Your task to perform on an android device: Open sound settings Image 0: 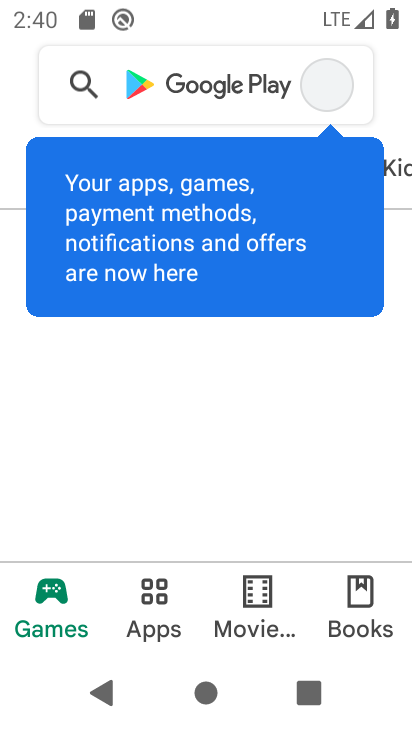
Step 0: press home button
Your task to perform on an android device: Open sound settings Image 1: 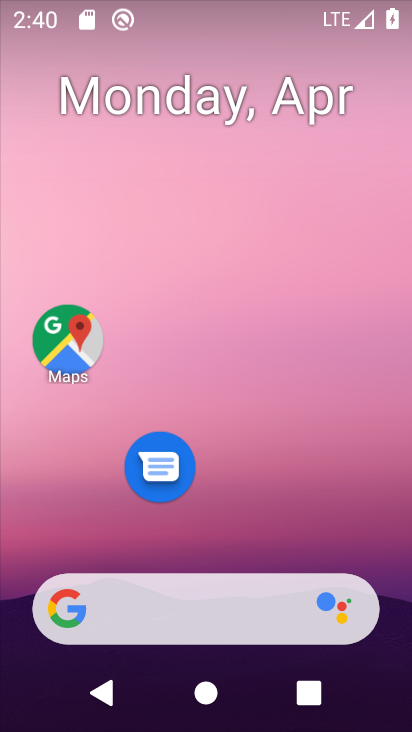
Step 1: drag from (284, 466) to (297, 66)
Your task to perform on an android device: Open sound settings Image 2: 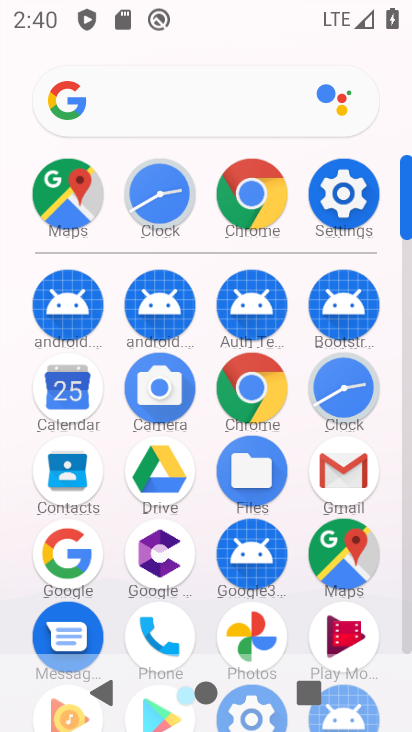
Step 2: click (339, 201)
Your task to perform on an android device: Open sound settings Image 3: 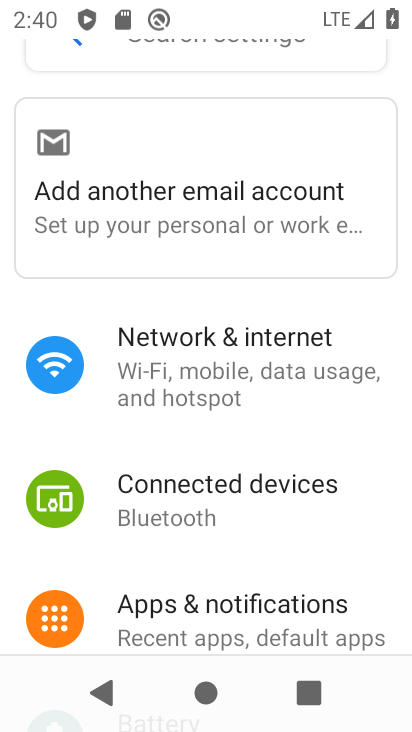
Step 3: drag from (215, 469) to (252, 314)
Your task to perform on an android device: Open sound settings Image 4: 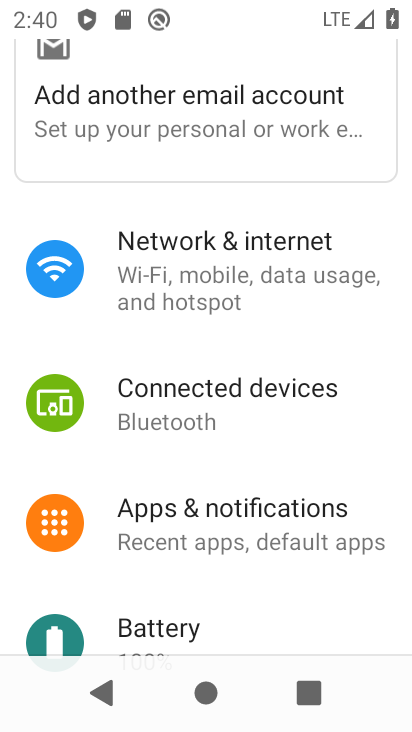
Step 4: drag from (188, 552) to (219, 400)
Your task to perform on an android device: Open sound settings Image 5: 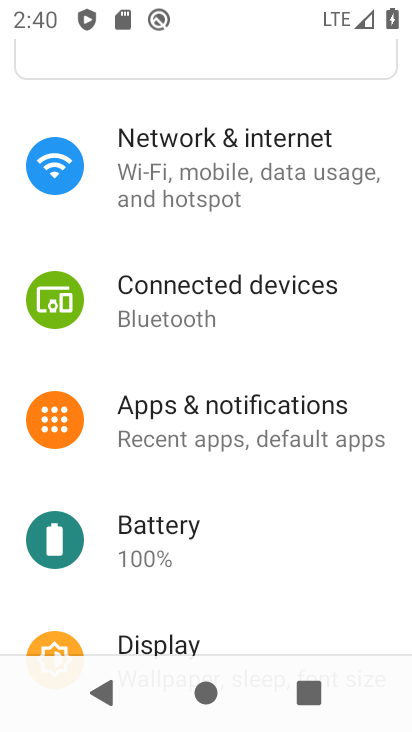
Step 5: drag from (213, 512) to (251, 393)
Your task to perform on an android device: Open sound settings Image 6: 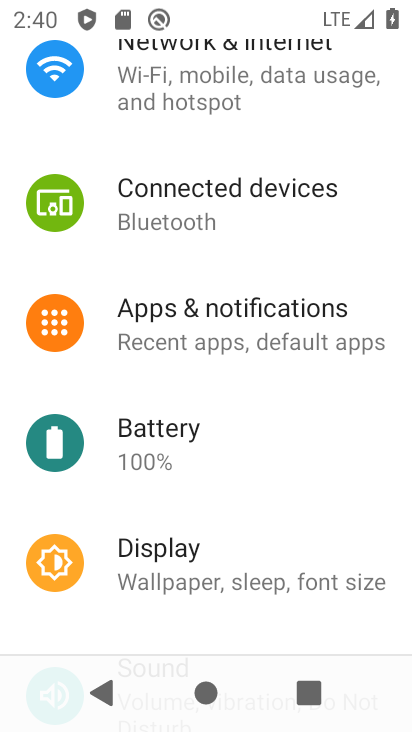
Step 6: drag from (237, 547) to (261, 411)
Your task to perform on an android device: Open sound settings Image 7: 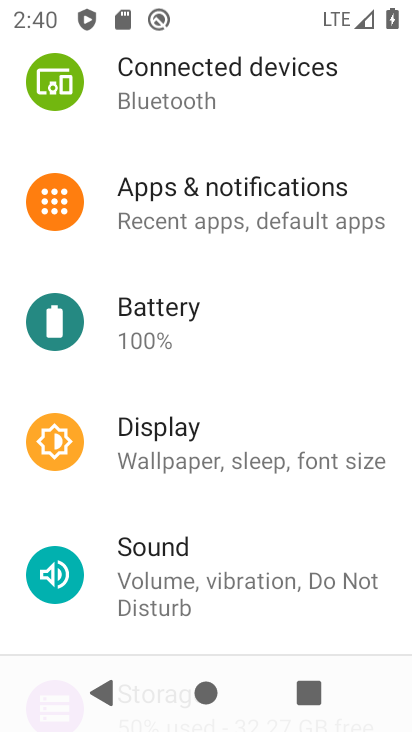
Step 7: click (255, 558)
Your task to perform on an android device: Open sound settings Image 8: 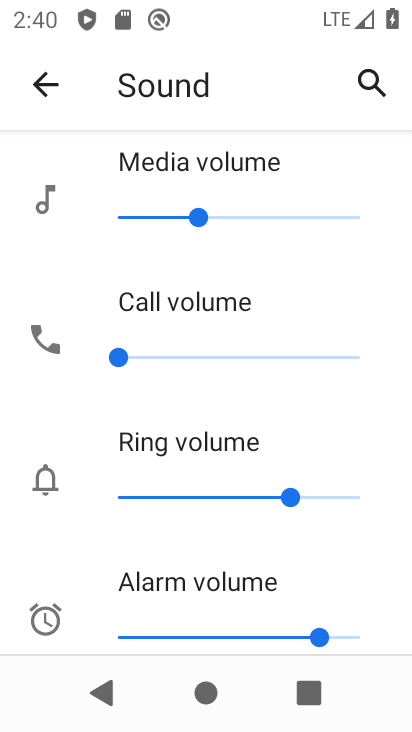
Step 8: task complete